Your task to perform on an android device: turn off location history Image 0: 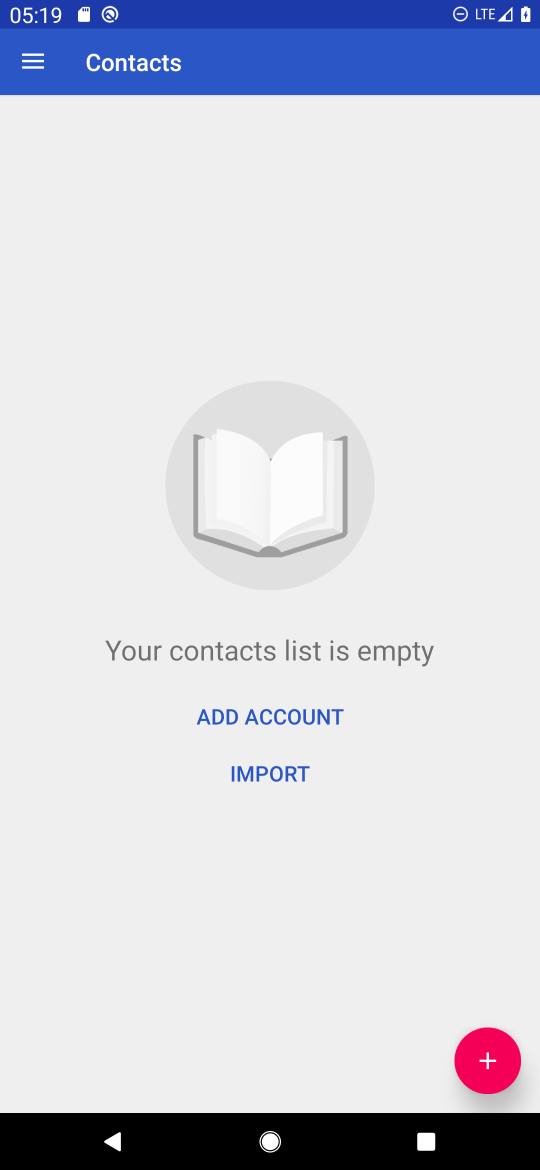
Step 0: press home button
Your task to perform on an android device: turn off location history Image 1: 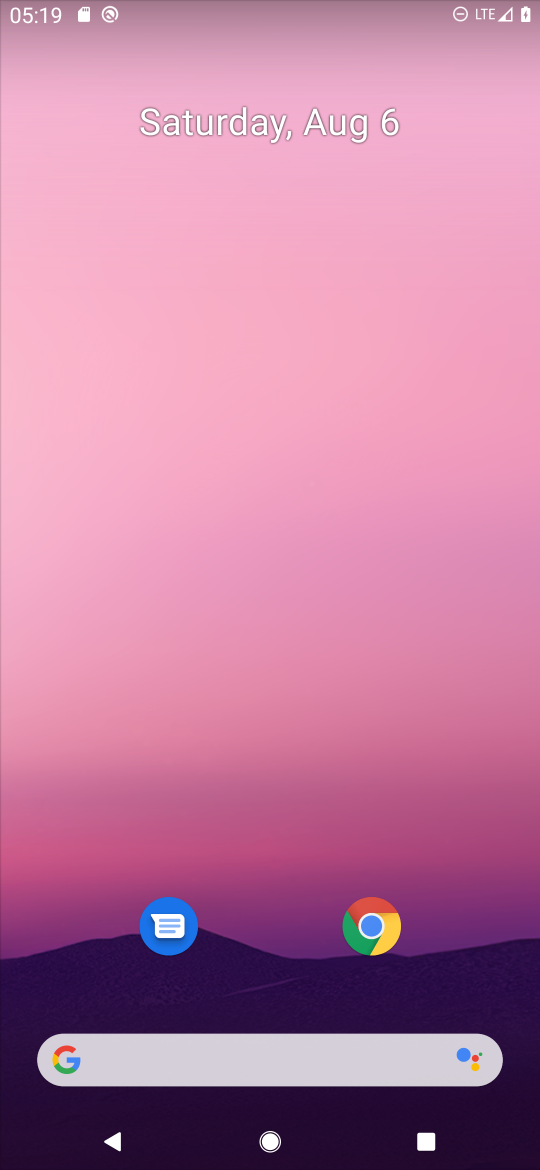
Step 1: drag from (261, 849) to (271, 296)
Your task to perform on an android device: turn off location history Image 2: 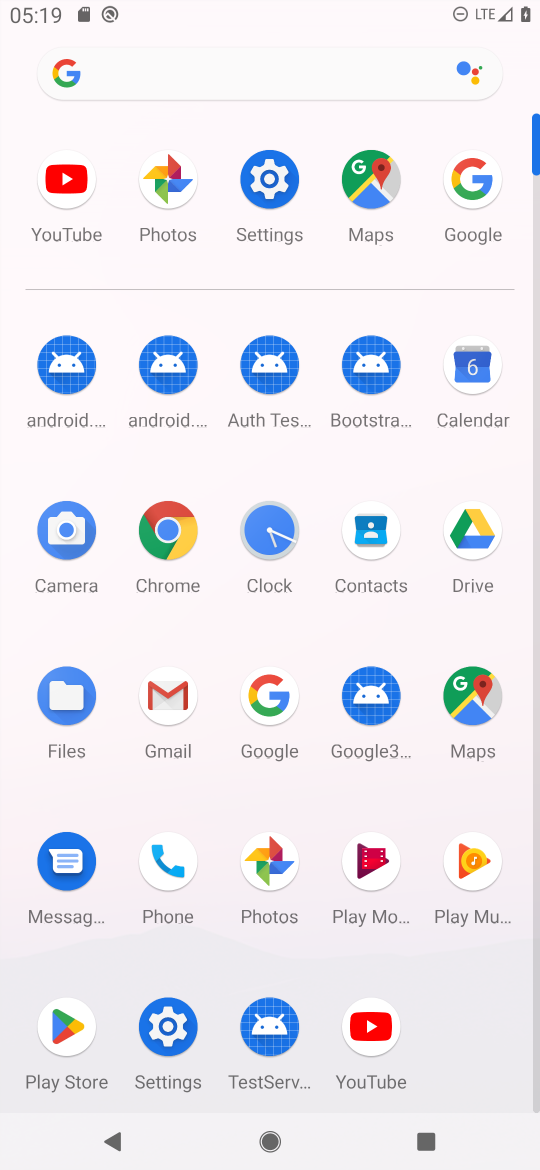
Step 2: click (271, 187)
Your task to perform on an android device: turn off location history Image 3: 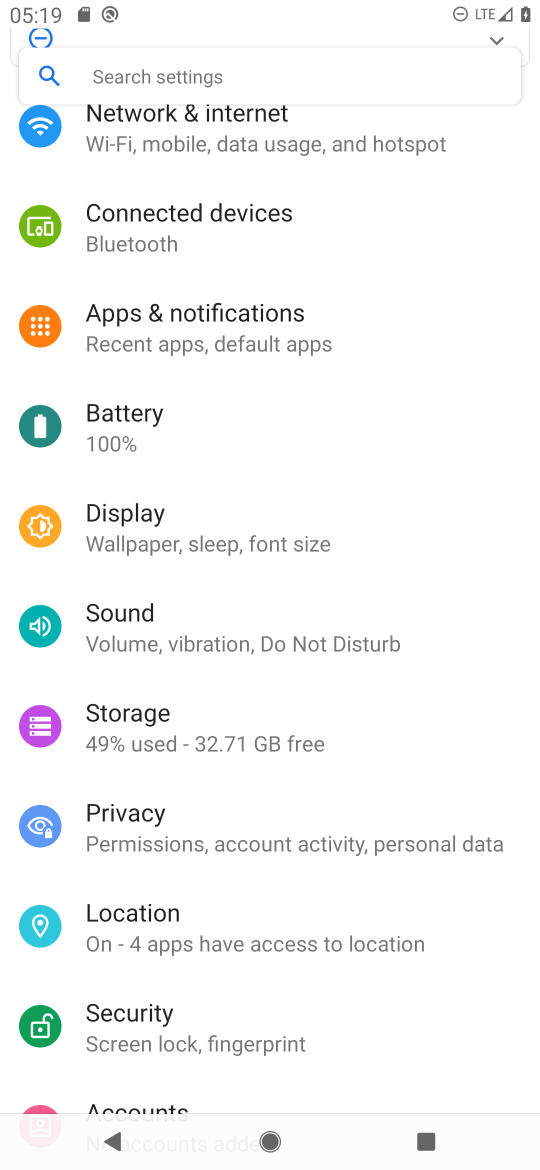
Step 3: click (189, 896)
Your task to perform on an android device: turn off location history Image 4: 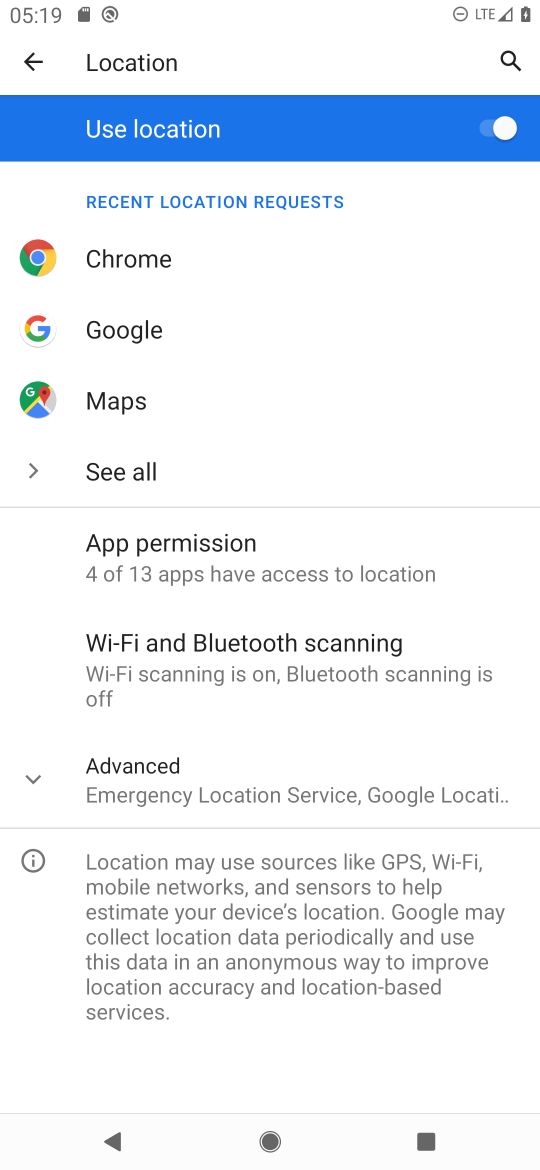
Step 4: click (263, 790)
Your task to perform on an android device: turn off location history Image 5: 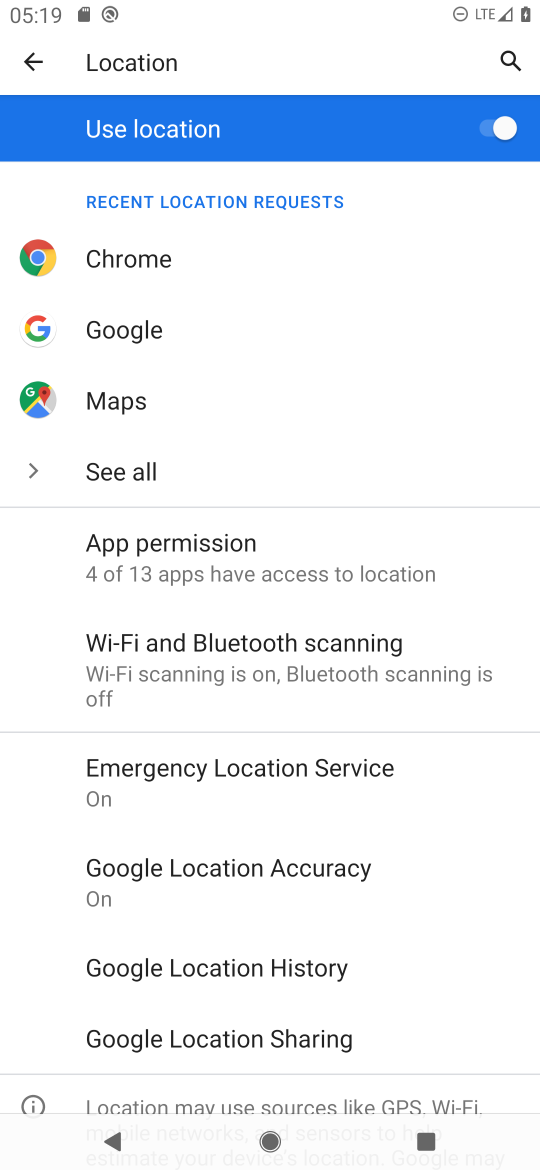
Step 5: click (294, 975)
Your task to perform on an android device: turn off location history Image 6: 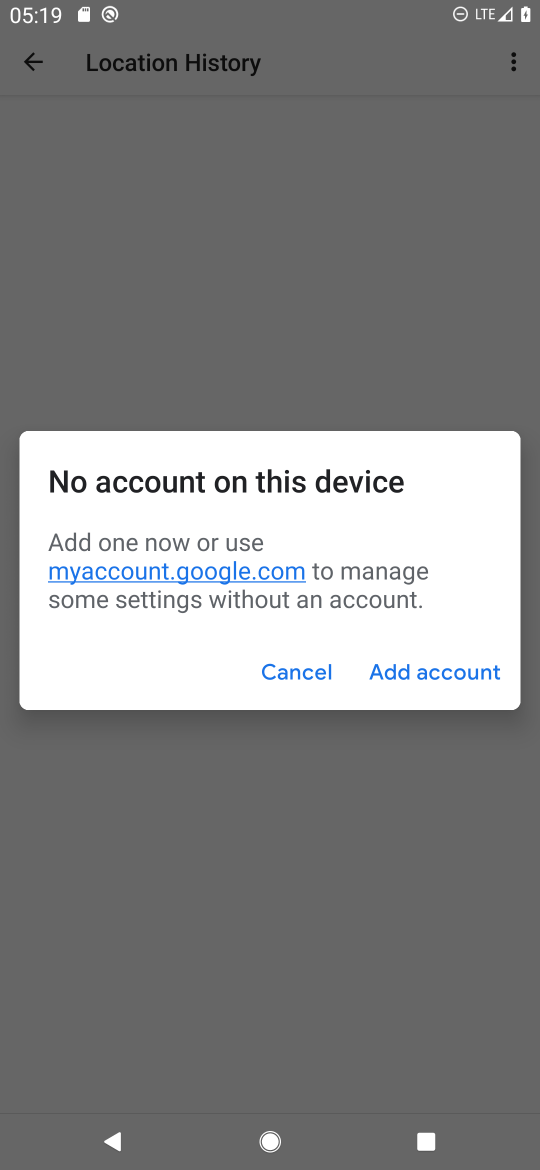
Step 6: click (303, 662)
Your task to perform on an android device: turn off location history Image 7: 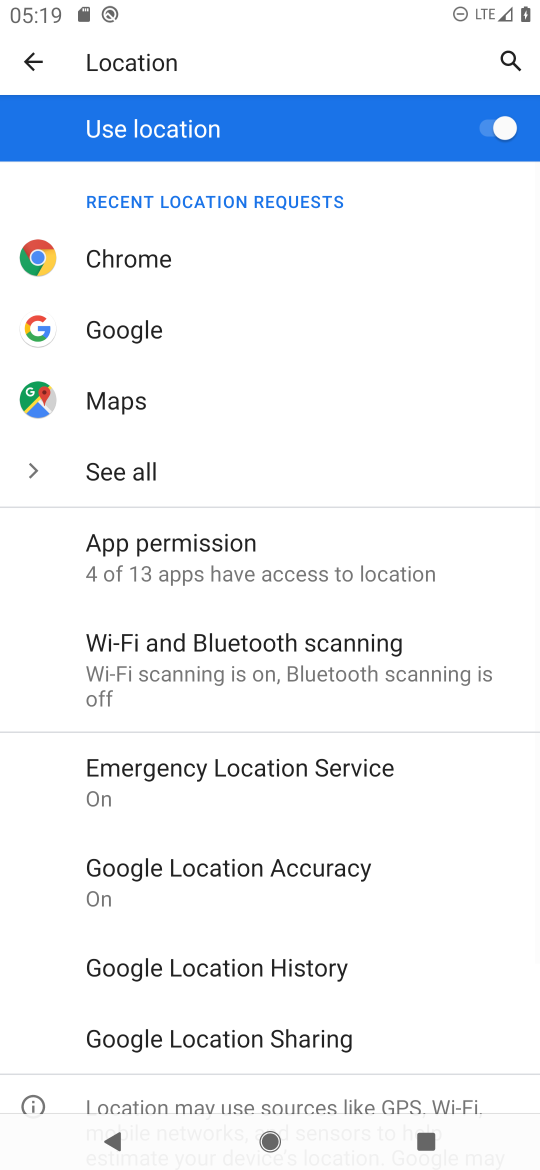
Step 7: click (488, 138)
Your task to perform on an android device: turn off location history Image 8: 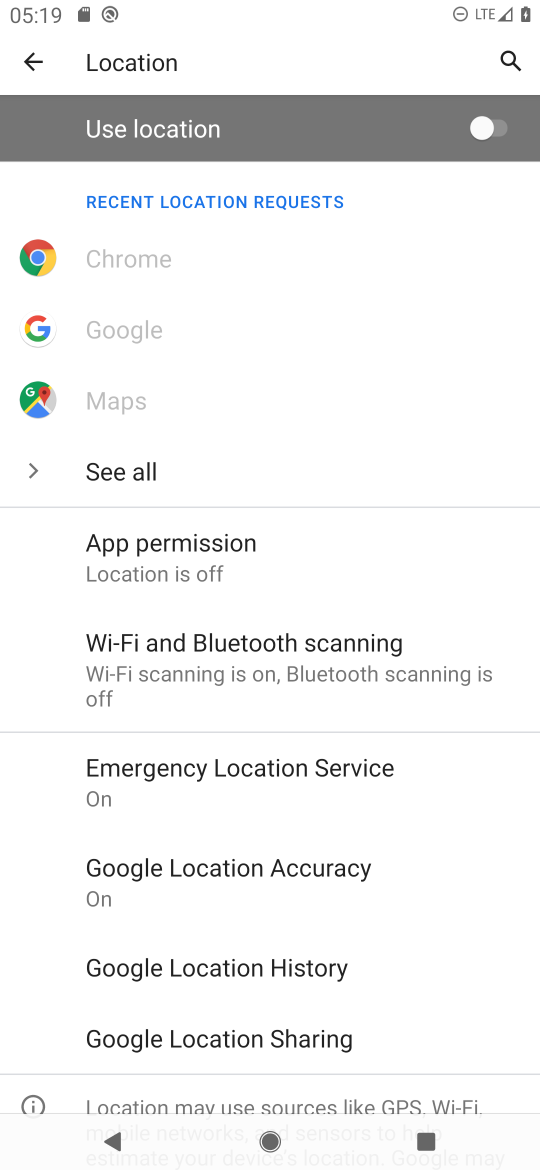
Step 8: click (487, 134)
Your task to perform on an android device: turn off location history Image 9: 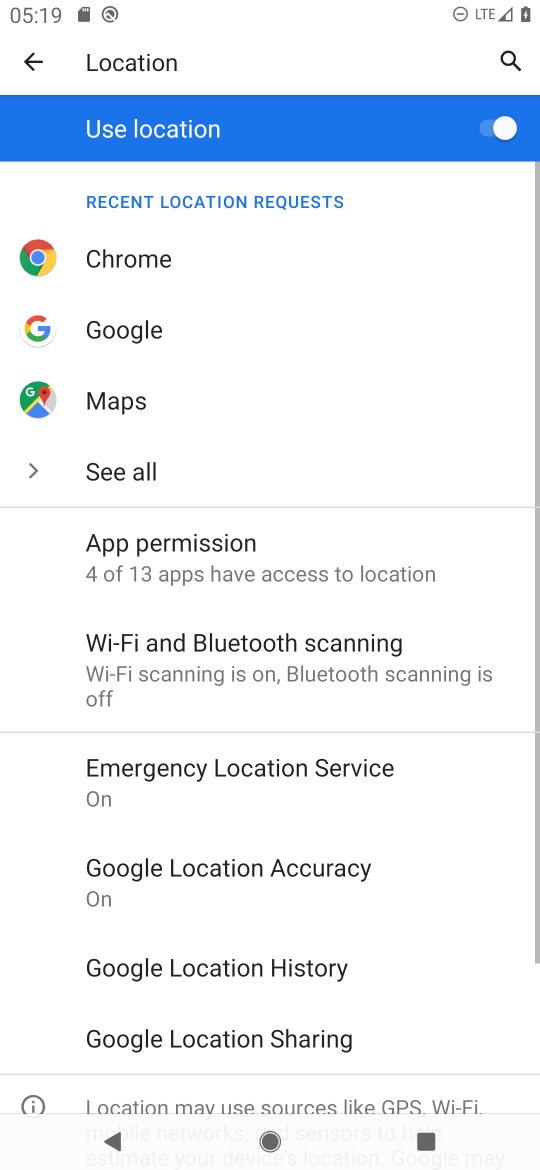
Step 9: click (268, 964)
Your task to perform on an android device: turn off location history Image 10: 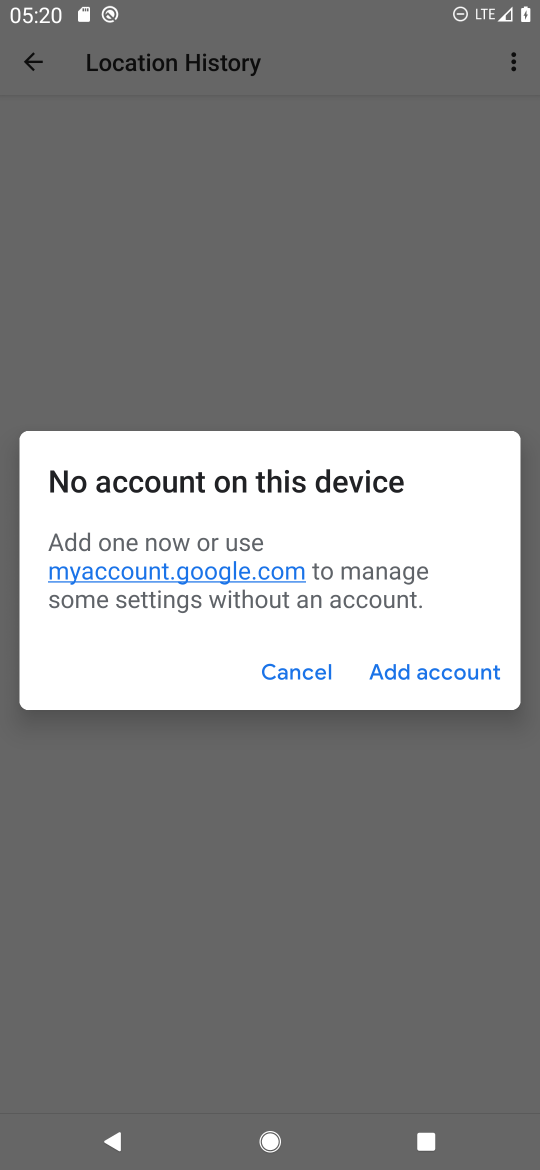
Step 10: task complete